Your task to perform on an android device: clear all cookies in the chrome app Image 0: 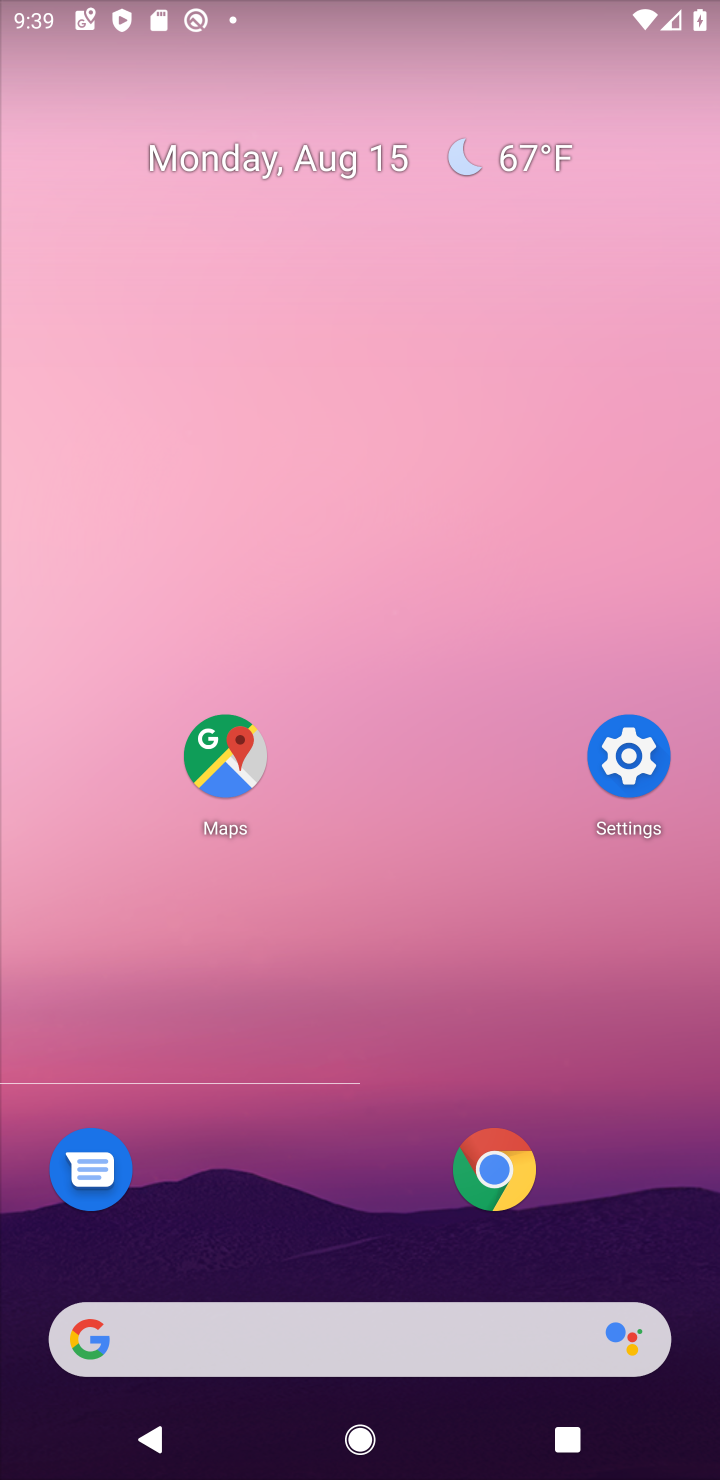
Step 0: click (478, 1168)
Your task to perform on an android device: clear all cookies in the chrome app Image 1: 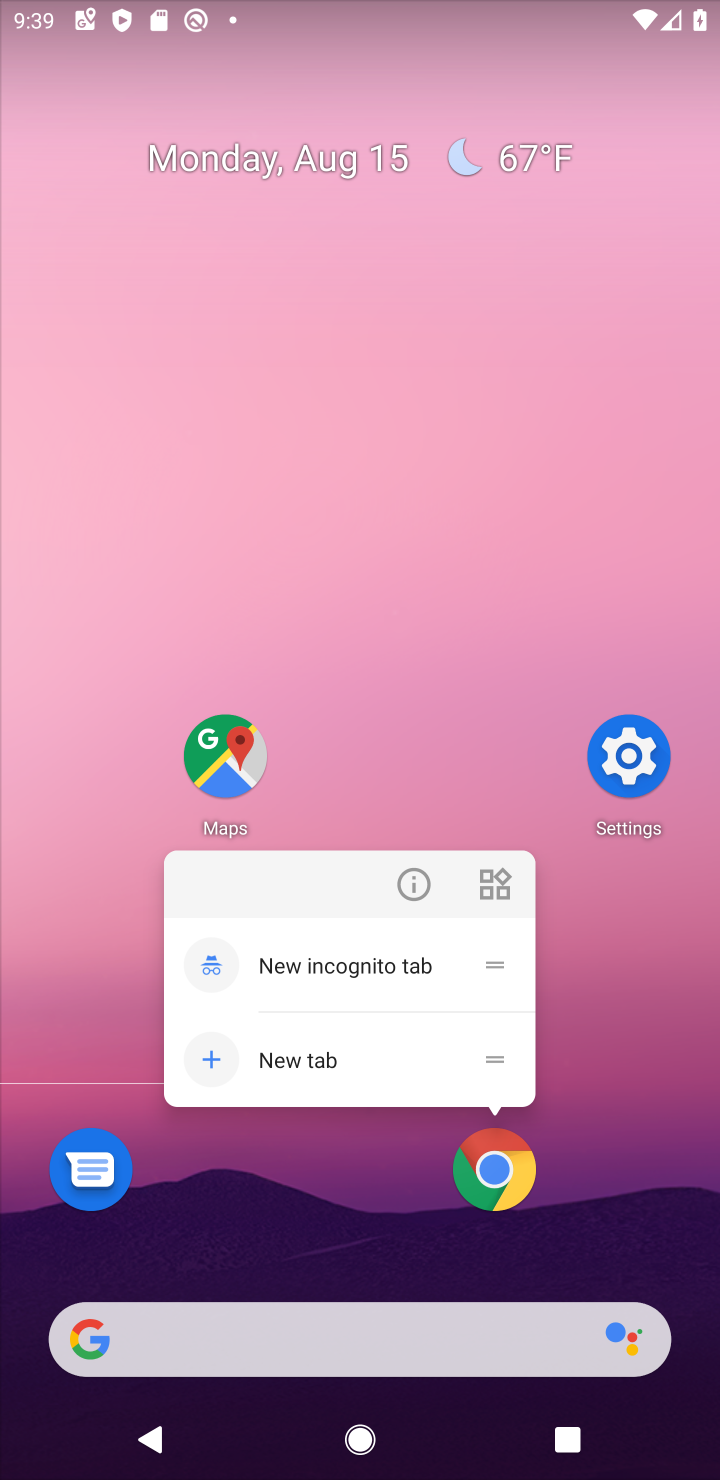
Step 1: click (492, 1164)
Your task to perform on an android device: clear all cookies in the chrome app Image 2: 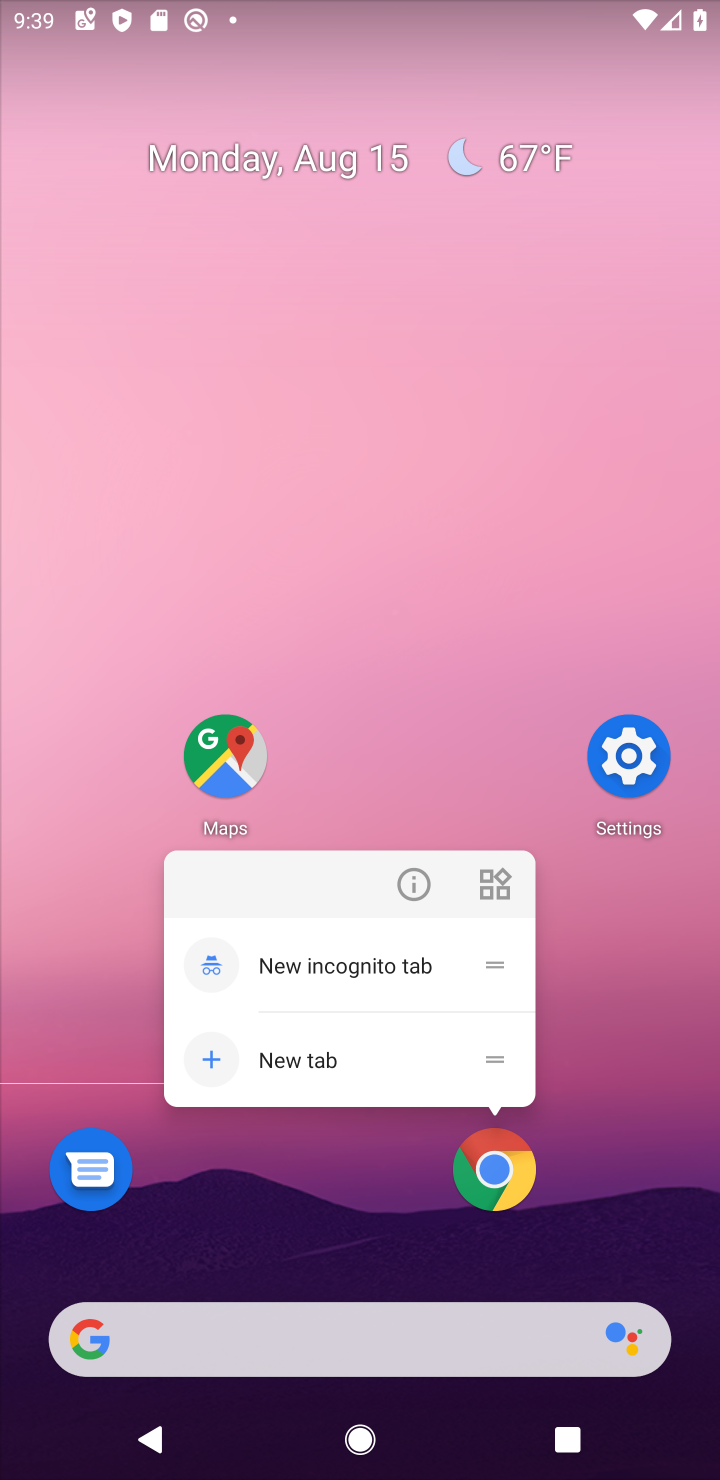
Step 2: click (492, 1168)
Your task to perform on an android device: clear all cookies in the chrome app Image 3: 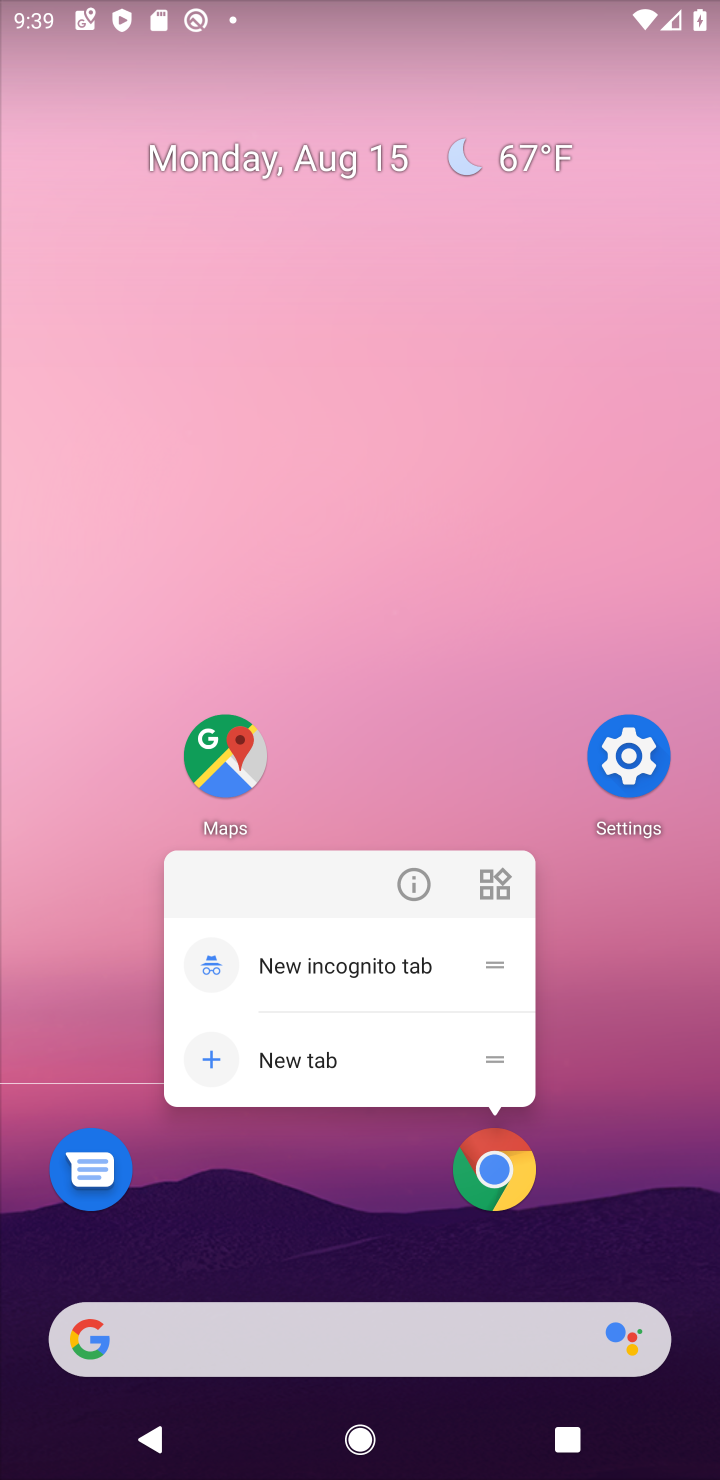
Step 3: click (479, 1165)
Your task to perform on an android device: clear all cookies in the chrome app Image 4: 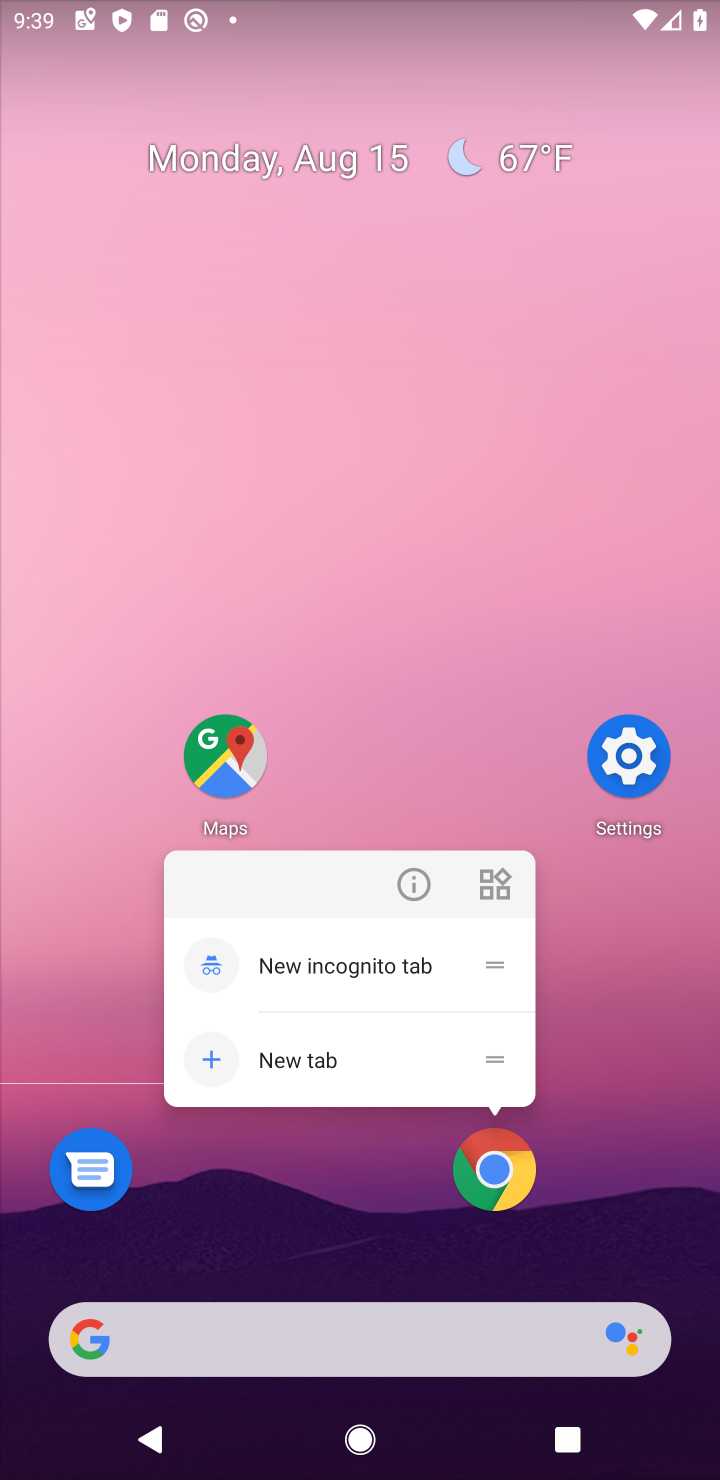
Step 4: click (493, 1168)
Your task to perform on an android device: clear all cookies in the chrome app Image 5: 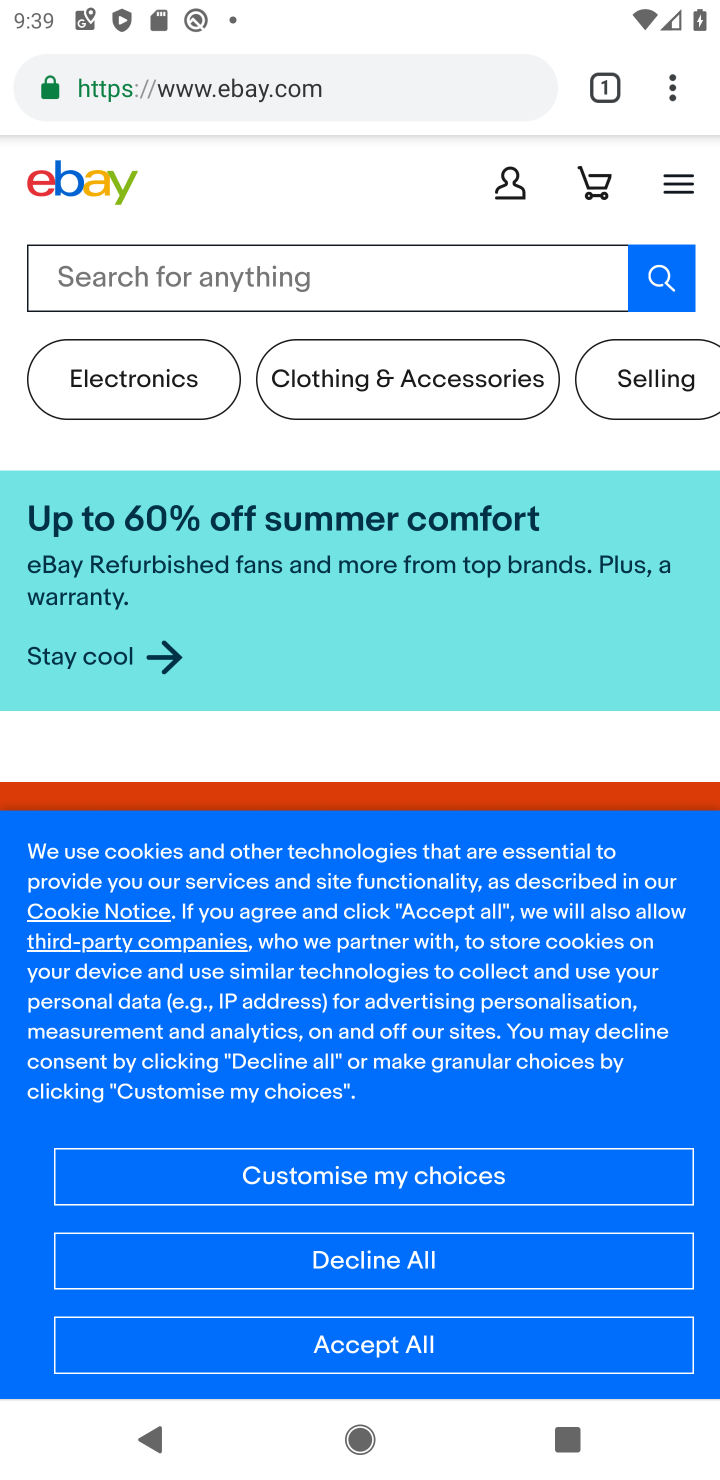
Step 5: drag from (665, 97) to (418, 1059)
Your task to perform on an android device: clear all cookies in the chrome app Image 6: 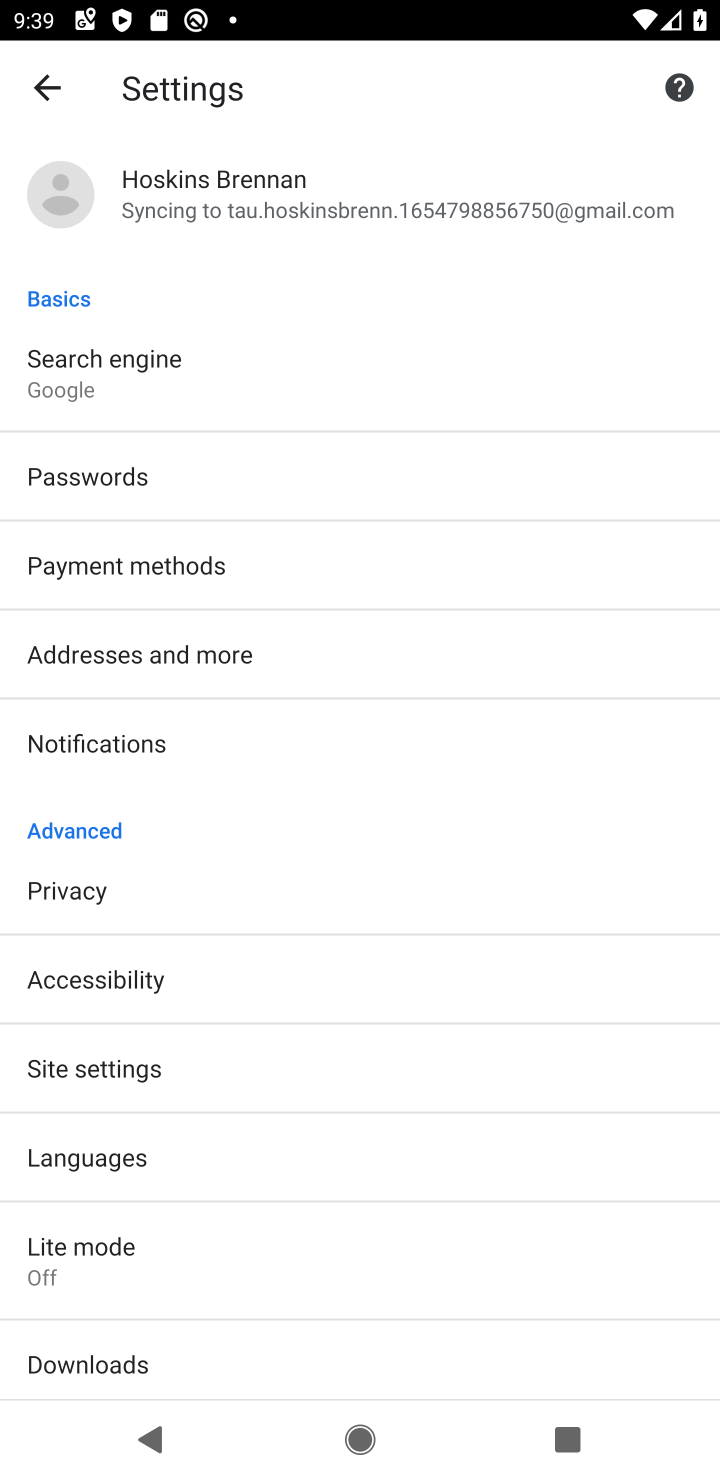
Step 6: click (105, 895)
Your task to perform on an android device: clear all cookies in the chrome app Image 7: 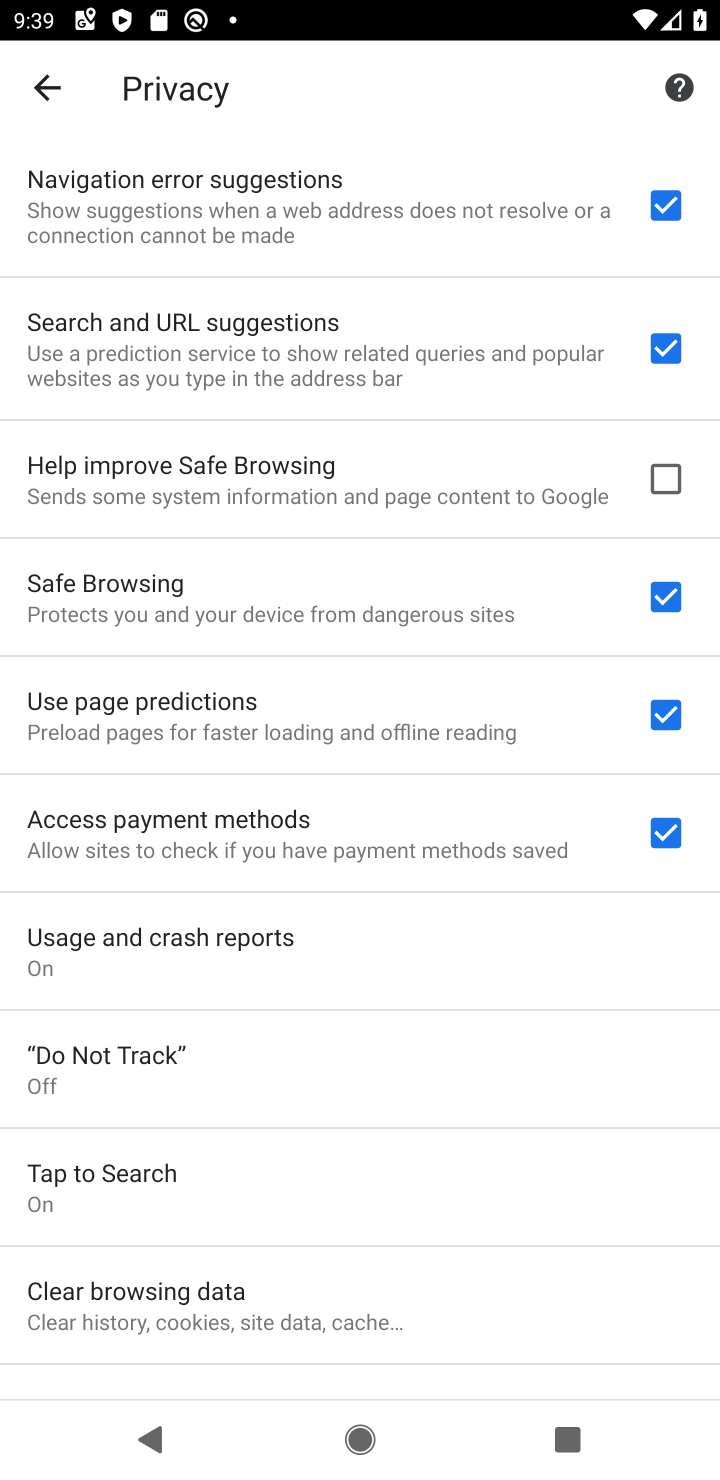
Step 7: drag from (267, 1236) to (385, 129)
Your task to perform on an android device: clear all cookies in the chrome app Image 8: 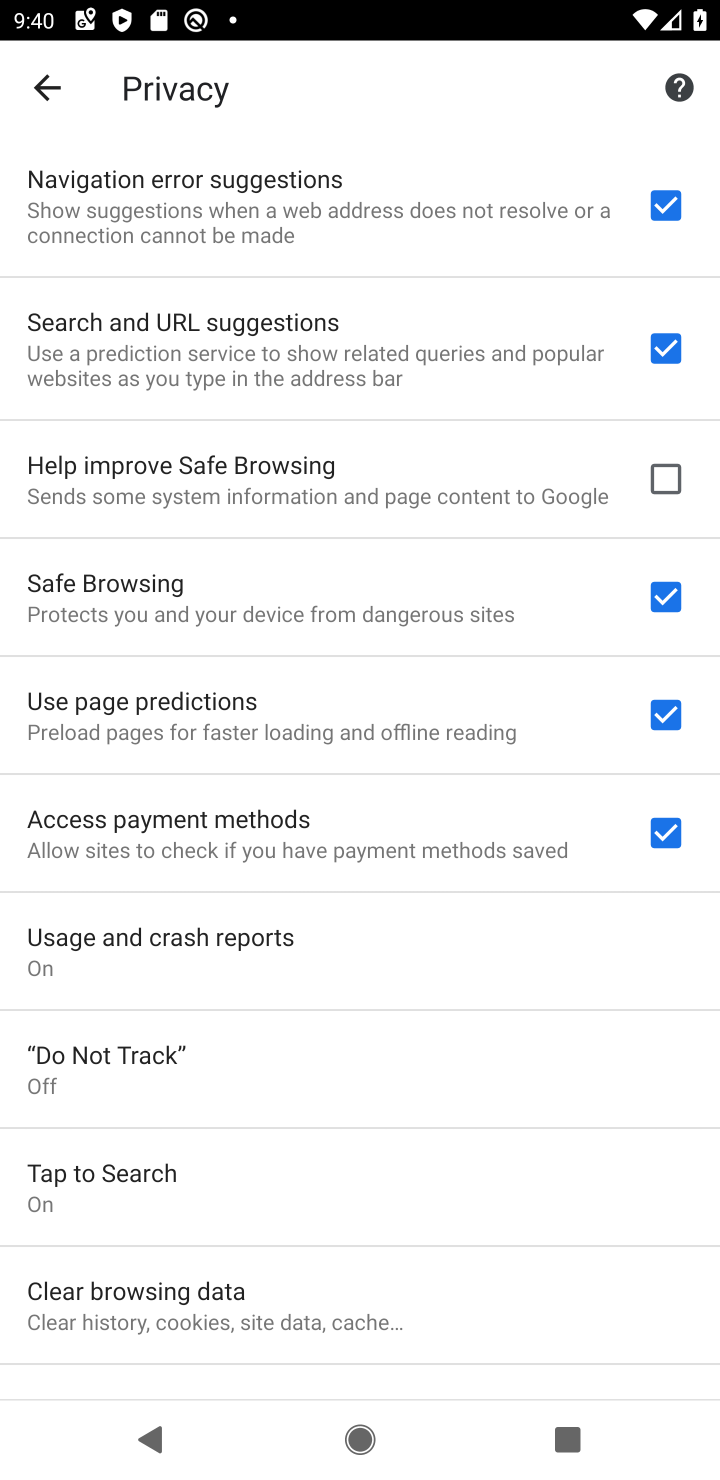
Step 8: click (245, 1295)
Your task to perform on an android device: clear all cookies in the chrome app Image 9: 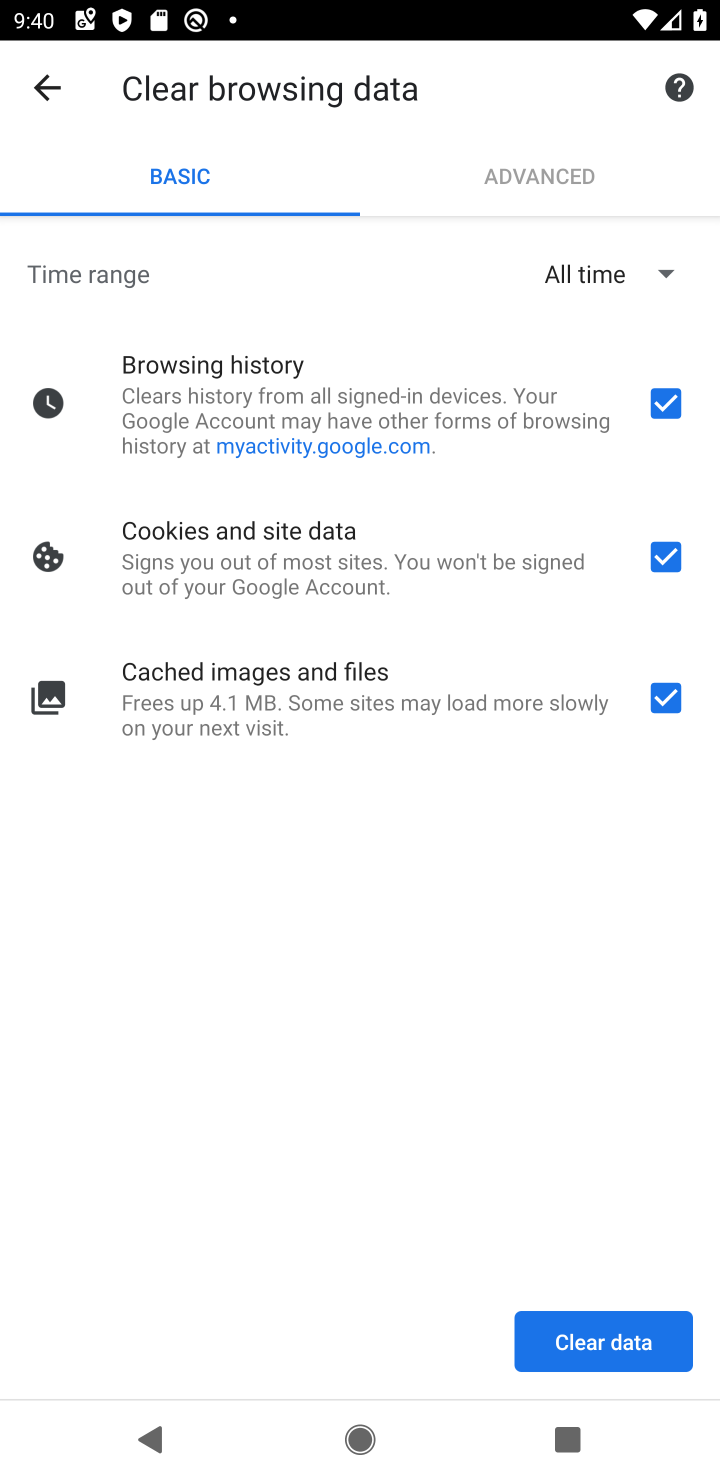
Step 9: click (675, 399)
Your task to perform on an android device: clear all cookies in the chrome app Image 10: 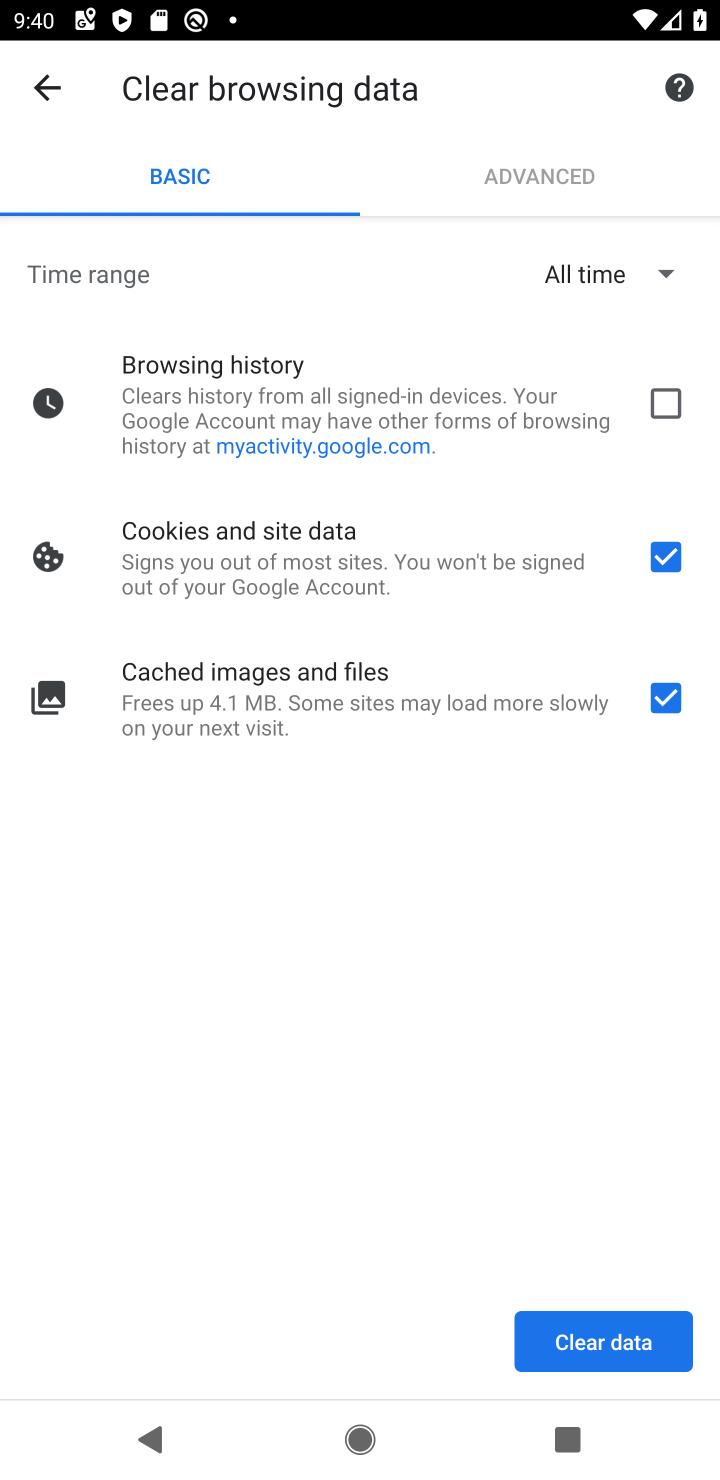
Step 10: click (676, 699)
Your task to perform on an android device: clear all cookies in the chrome app Image 11: 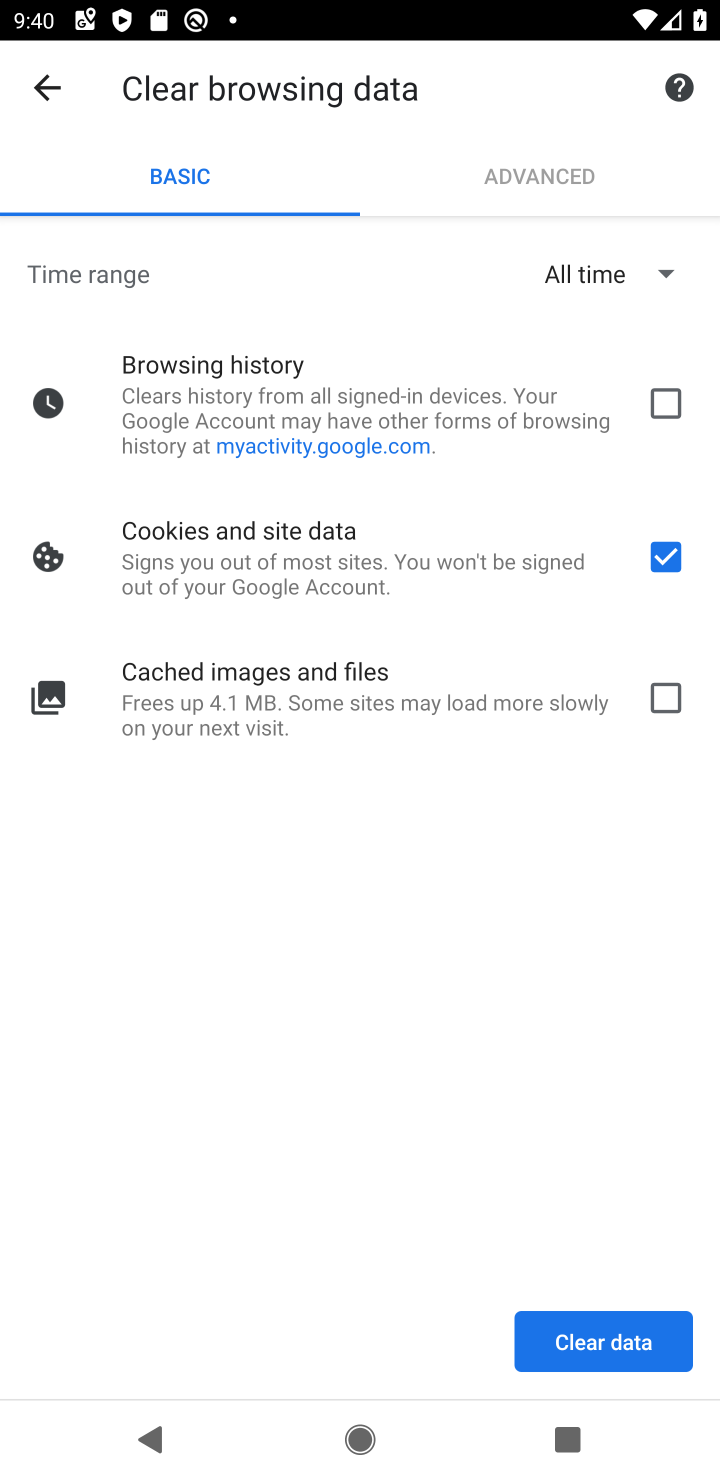
Step 11: click (649, 1349)
Your task to perform on an android device: clear all cookies in the chrome app Image 12: 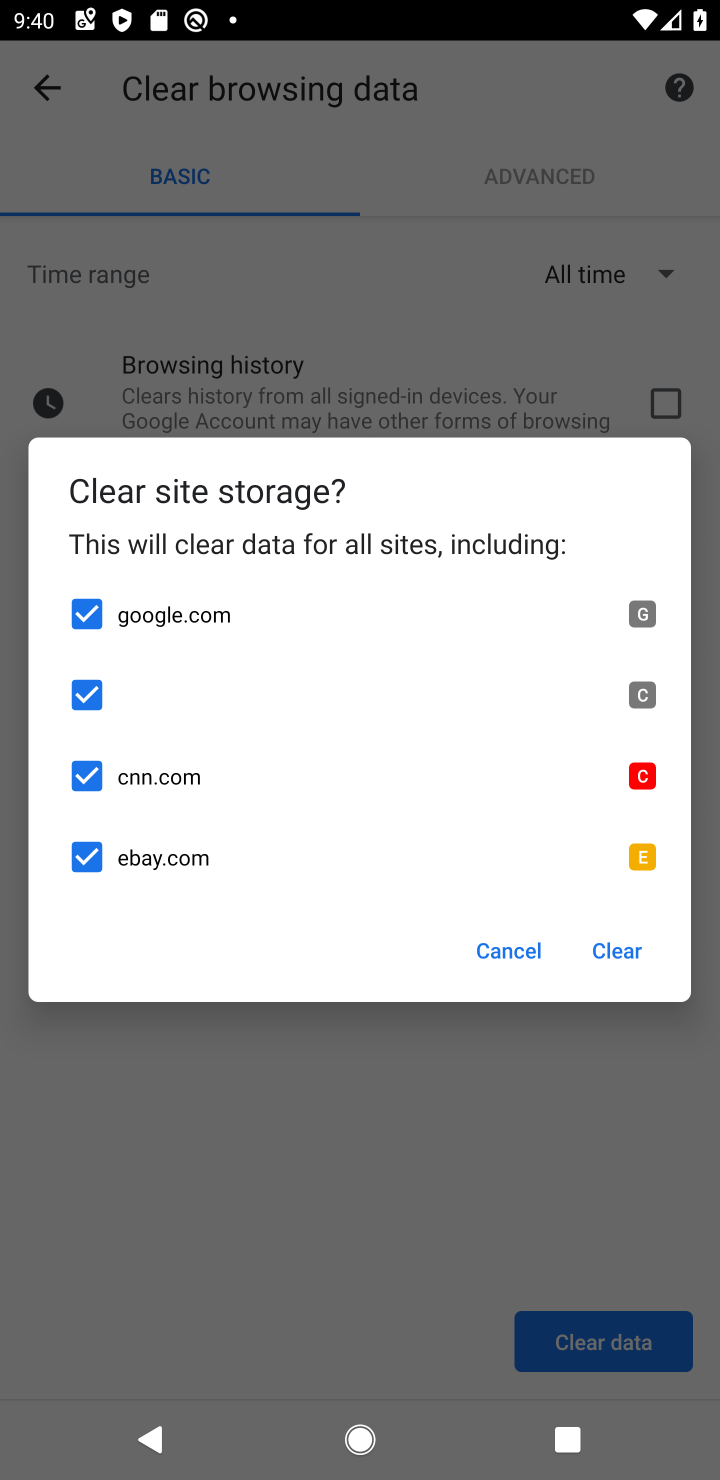
Step 12: click (628, 949)
Your task to perform on an android device: clear all cookies in the chrome app Image 13: 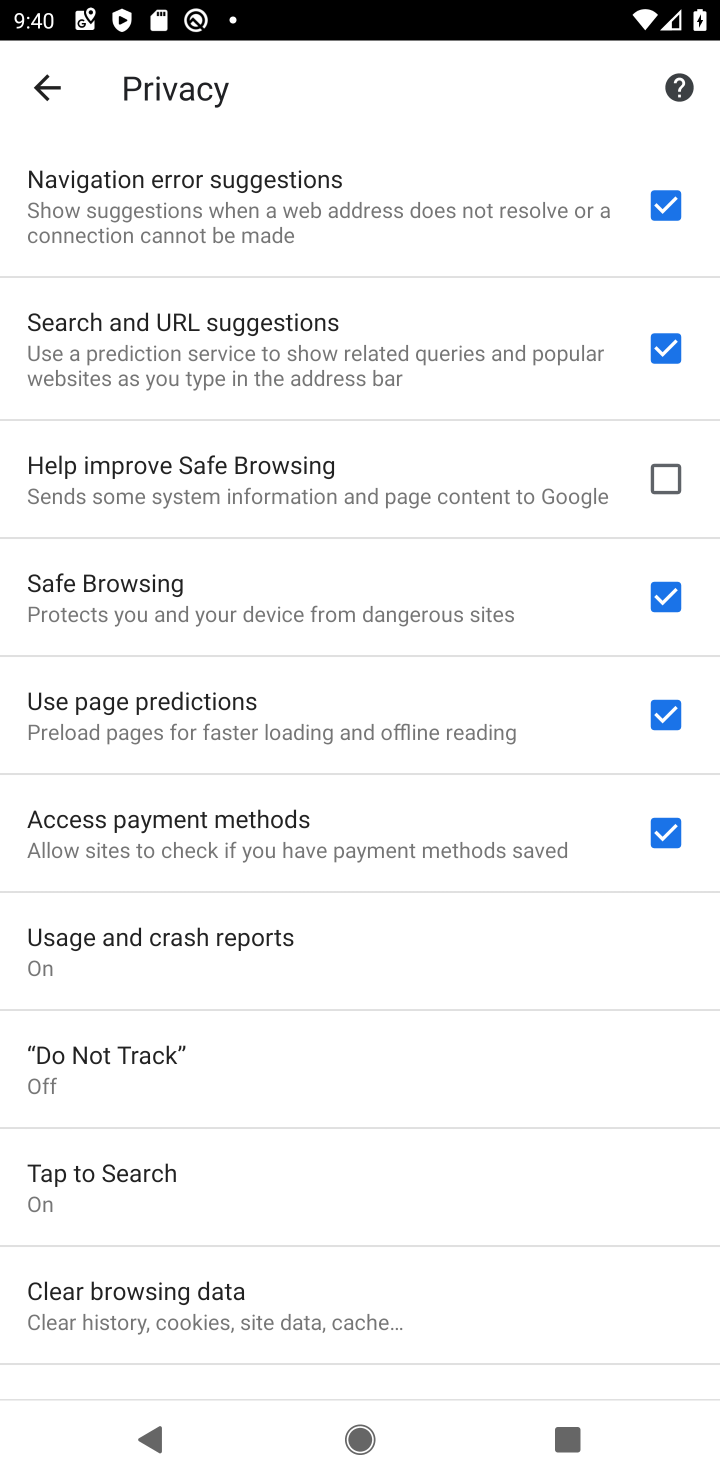
Step 13: task complete